Your task to perform on an android device: Open eBay Image 0: 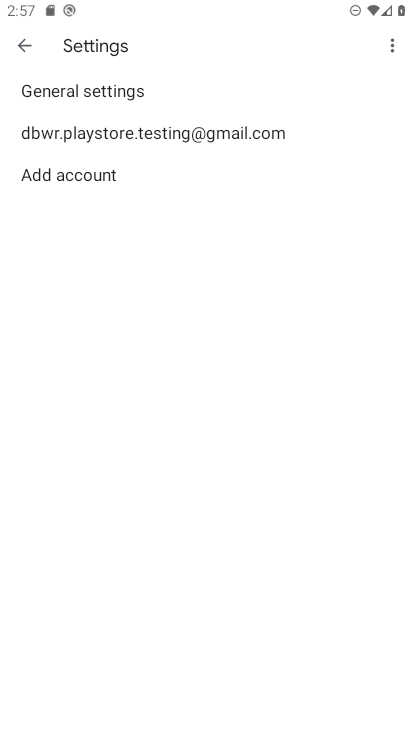
Step 0: press home button
Your task to perform on an android device: Open eBay Image 1: 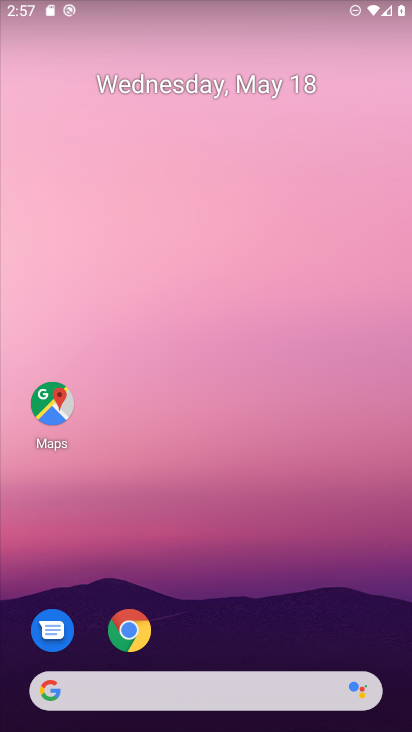
Step 1: drag from (223, 643) to (254, 33)
Your task to perform on an android device: Open eBay Image 2: 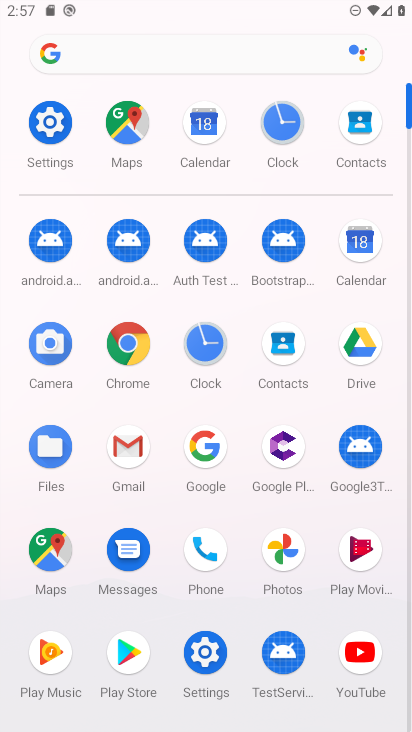
Step 2: click (123, 333)
Your task to perform on an android device: Open eBay Image 3: 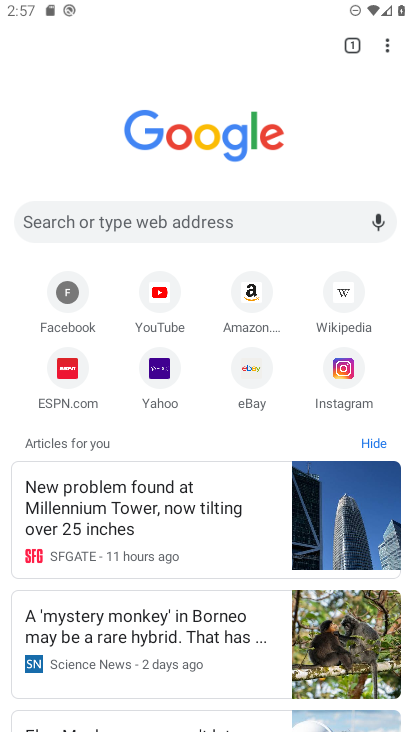
Step 3: click (256, 364)
Your task to perform on an android device: Open eBay Image 4: 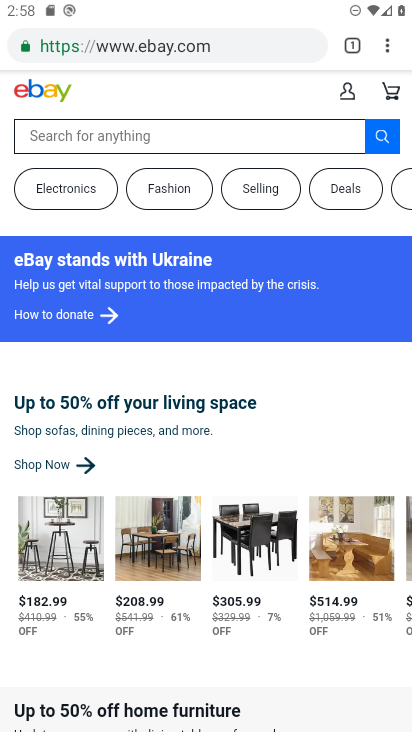
Step 4: task complete